Your task to perform on an android device: visit the assistant section in the google photos Image 0: 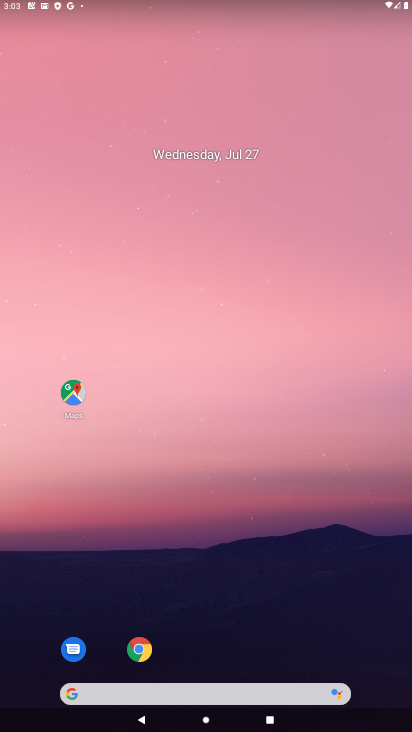
Step 0: drag from (236, 434) to (284, 117)
Your task to perform on an android device: visit the assistant section in the google photos Image 1: 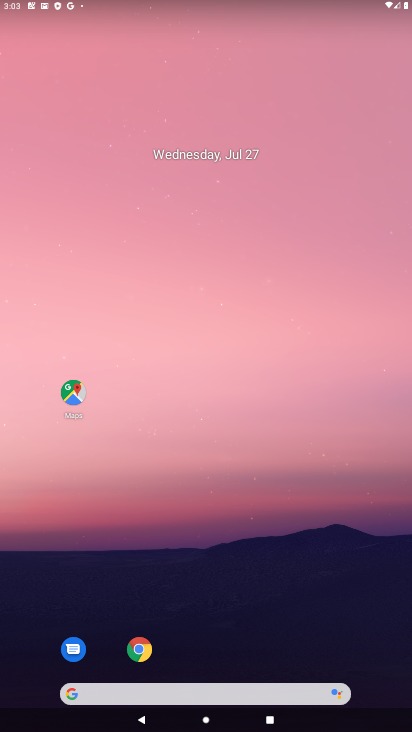
Step 1: drag from (232, 436) to (252, 172)
Your task to perform on an android device: visit the assistant section in the google photos Image 2: 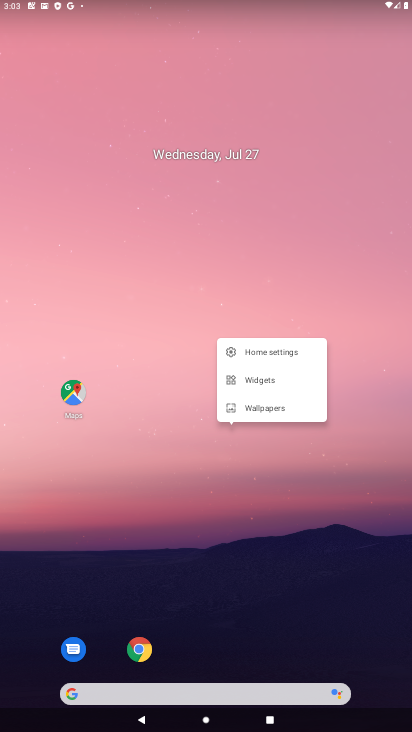
Step 2: click (202, 590)
Your task to perform on an android device: visit the assistant section in the google photos Image 3: 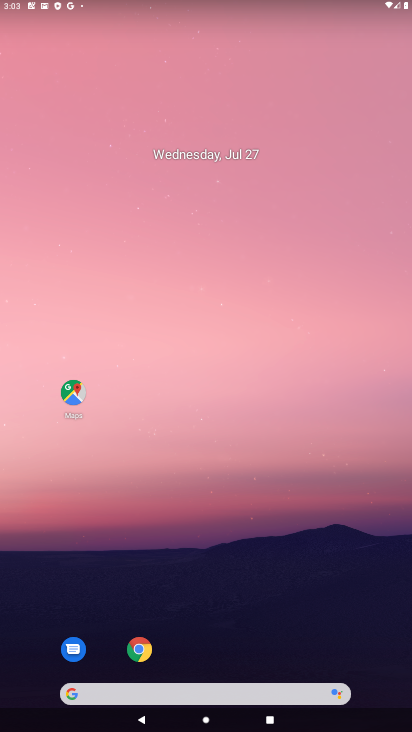
Step 3: drag from (218, 565) to (137, 230)
Your task to perform on an android device: visit the assistant section in the google photos Image 4: 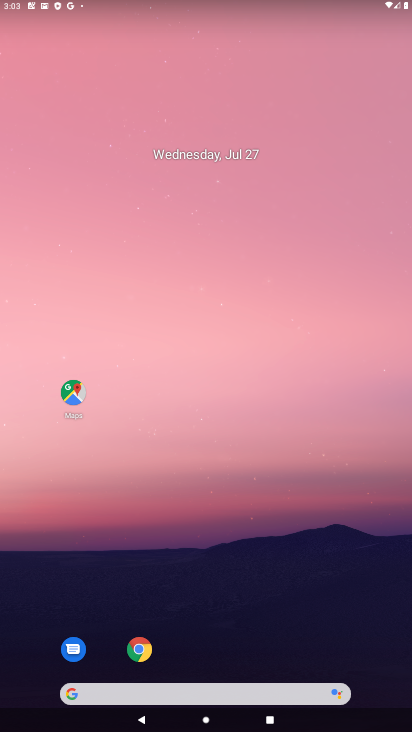
Step 4: drag from (265, 551) to (256, 19)
Your task to perform on an android device: visit the assistant section in the google photos Image 5: 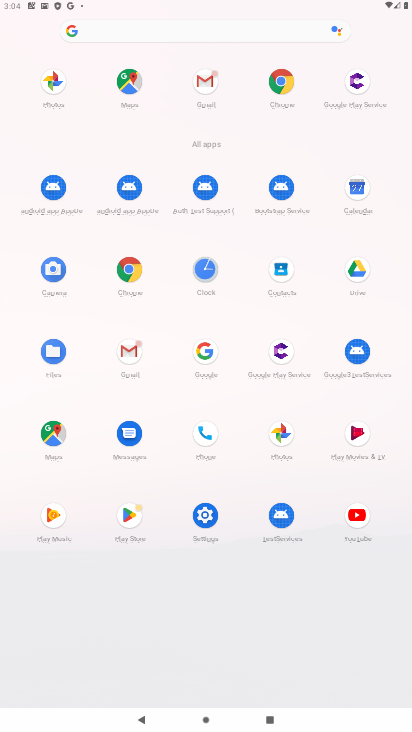
Step 5: click (53, 86)
Your task to perform on an android device: visit the assistant section in the google photos Image 6: 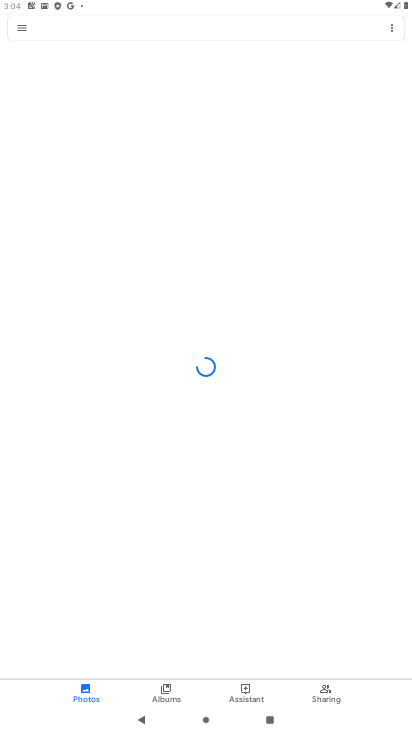
Step 6: task complete